Your task to perform on an android device: toggle translation in the chrome app Image 0: 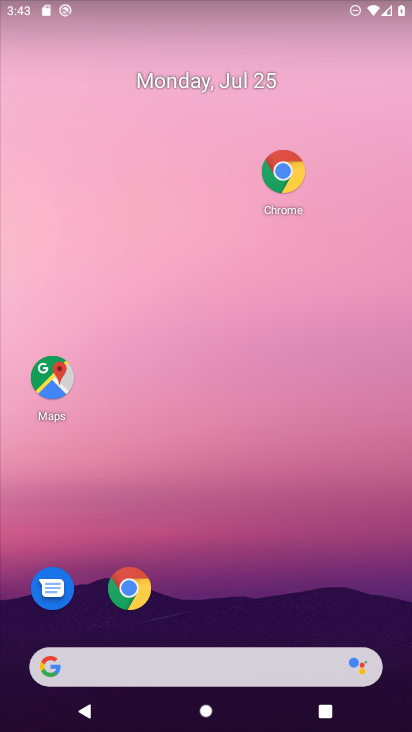
Step 0: drag from (259, 622) to (193, 344)
Your task to perform on an android device: toggle translation in the chrome app Image 1: 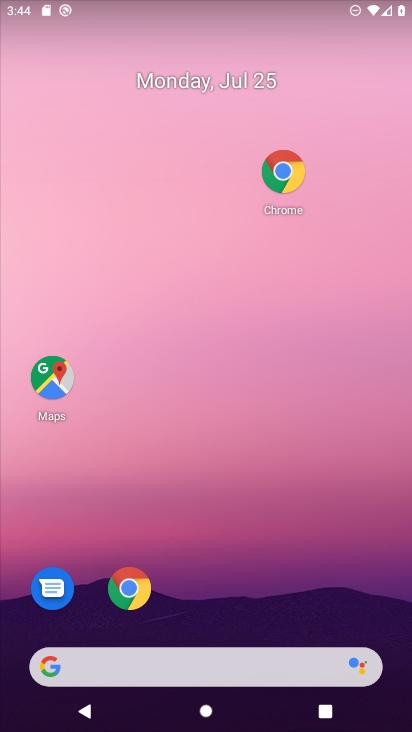
Step 1: drag from (189, 683) to (226, 281)
Your task to perform on an android device: toggle translation in the chrome app Image 2: 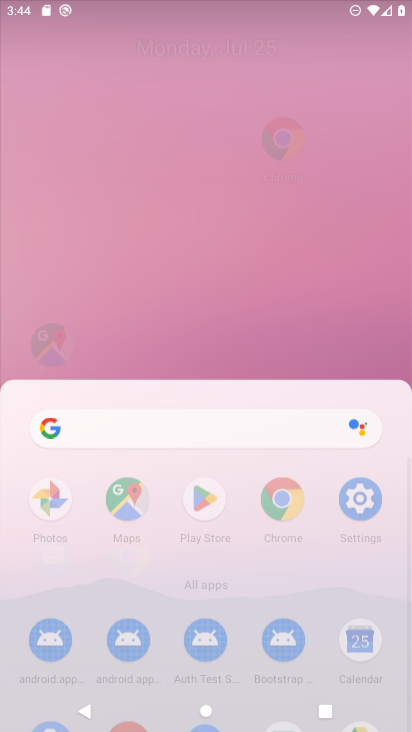
Step 2: drag from (270, 548) to (267, 219)
Your task to perform on an android device: toggle translation in the chrome app Image 3: 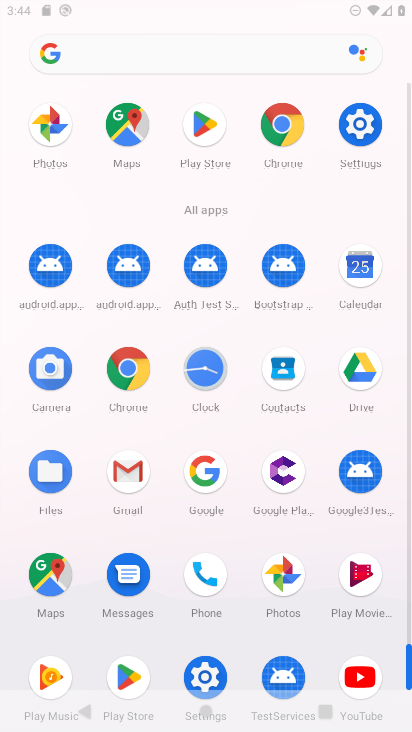
Step 3: drag from (251, 417) to (257, 8)
Your task to perform on an android device: toggle translation in the chrome app Image 4: 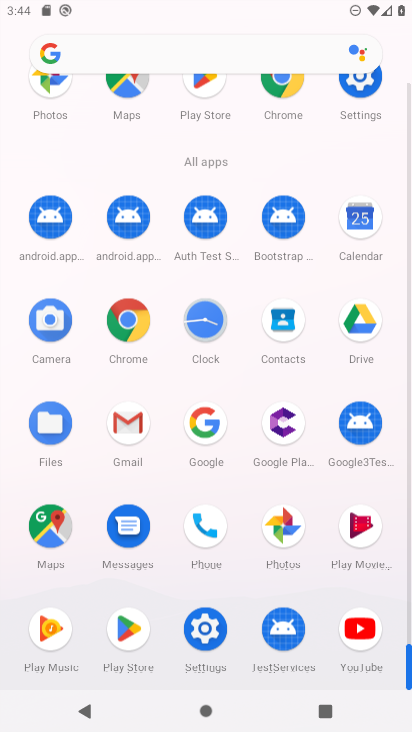
Step 4: click (296, 120)
Your task to perform on an android device: toggle translation in the chrome app Image 5: 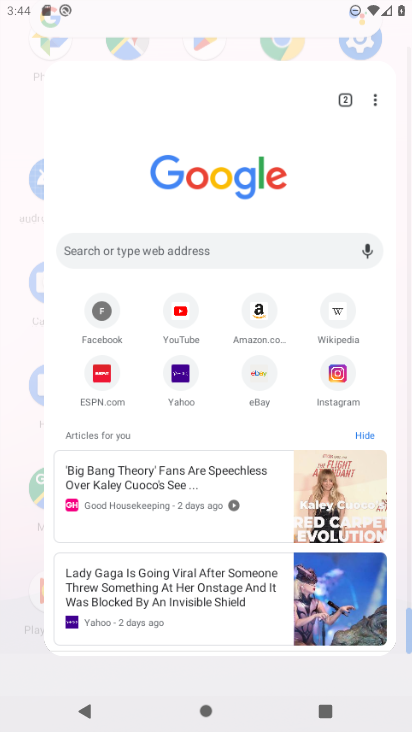
Step 5: click (288, 81)
Your task to perform on an android device: toggle translation in the chrome app Image 6: 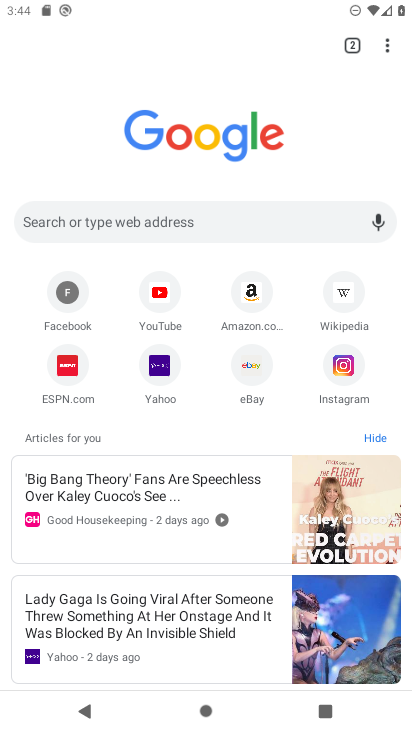
Step 6: click (287, 80)
Your task to perform on an android device: toggle translation in the chrome app Image 7: 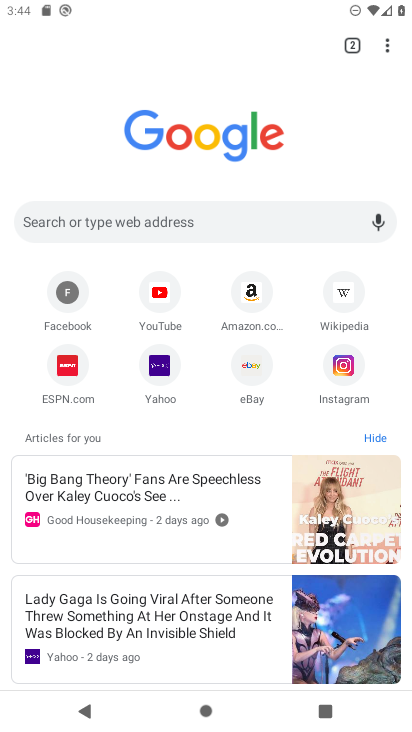
Step 7: click (286, 79)
Your task to perform on an android device: toggle translation in the chrome app Image 8: 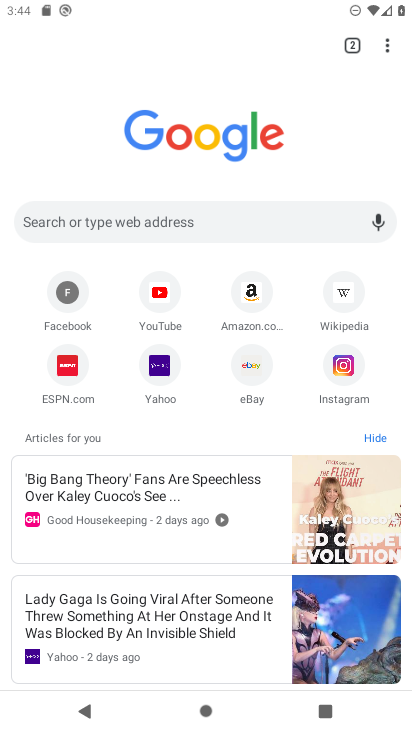
Step 8: click (384, 42)
Your task to perform on an android device: toggle translation in the chrome app Image 9: 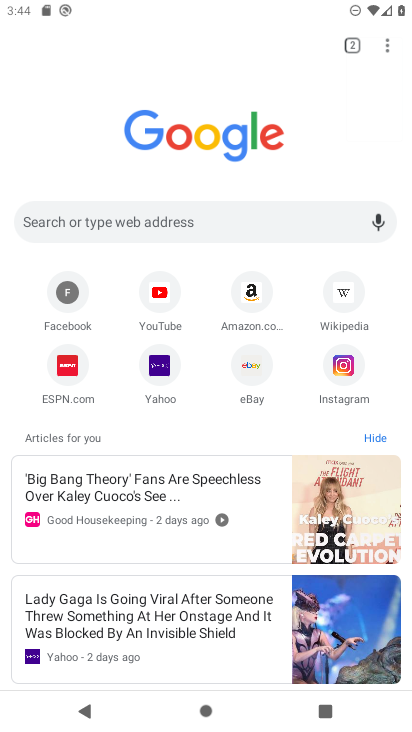
Step 9: click (385, 43)
Your task to perform on an android device: toggle translation in the chrome app Image 10: 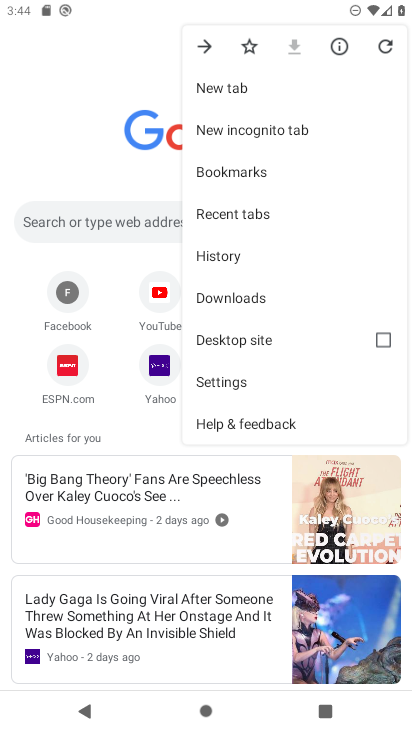
Step 10: click (213, 379)
Your task to perform on an android device: toggle translation in the chrome app Image 11: 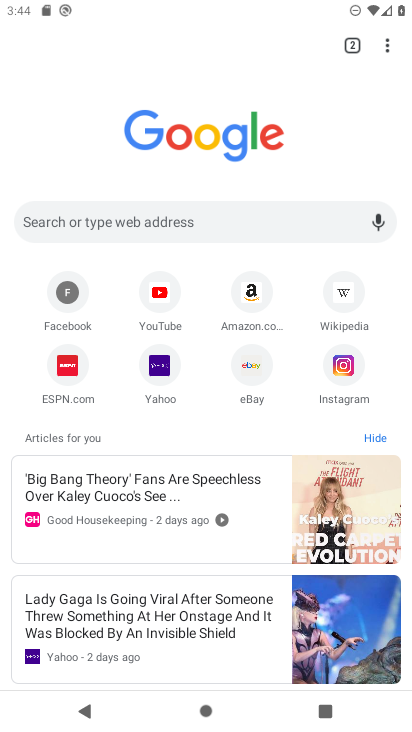
Step 11: click (220, 379)
Your task to perform on an android device: toggle translation in the chrome app Image 12: 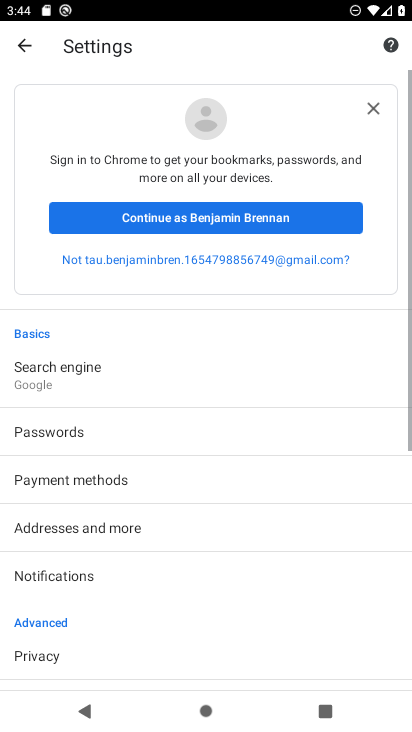
Step 12: drag from (130, 511) to (146, 111)
Your task to perform on an android device: toggle translation in the chrome app Image 13: 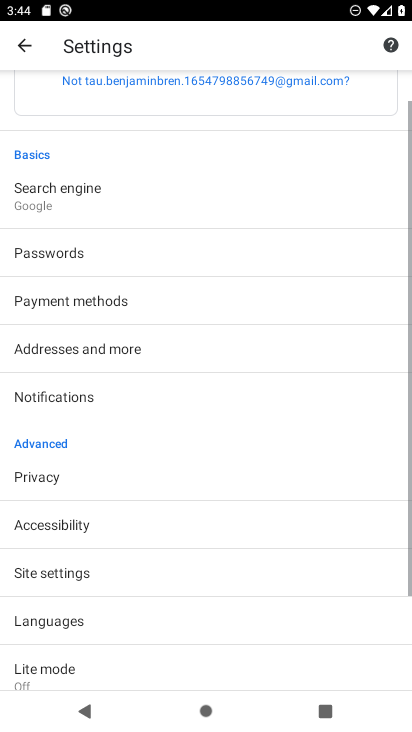
Step 13: drag from (152, 487) to (166, 256)
Your task to perform on an android device: toggle translation in the chrome app Image 14: 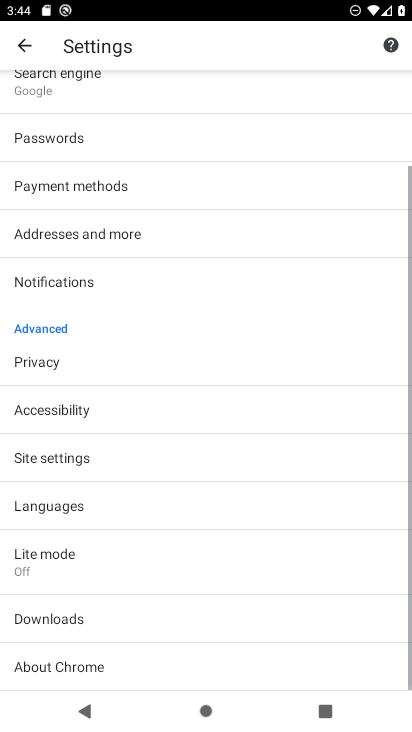
Step 14: drag from (155, 455) to (131, 250)
Your task to perform on an android device: toggle translation in the chrome app Image 15: 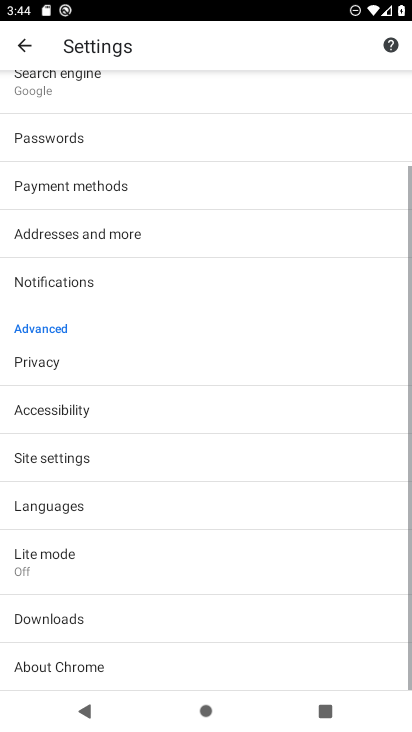
Step 15: click (117, 501)
Your task to perform on an android device: toggle translation in the chrome app Image 16: 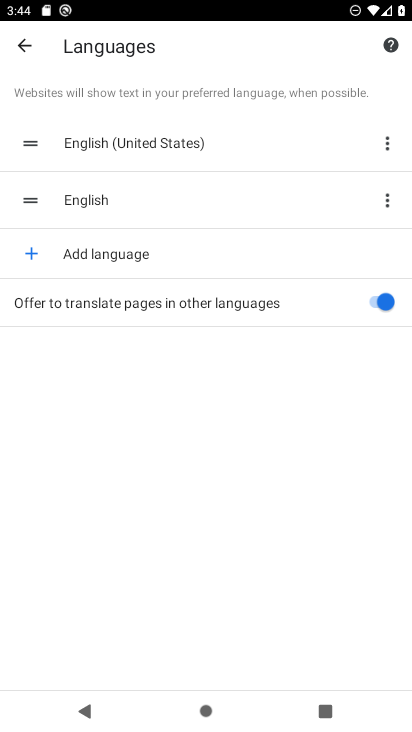
Step 16: click (388, 307)
Your task to perform on an android device: toggle translation in the chrome app Image 17: 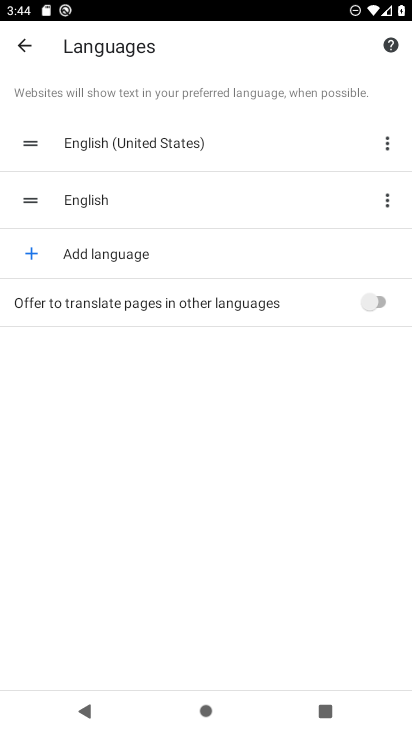
Step 17: task complete